Your task to perform on an android device: Open Google Maps and go to "Timeline" Image 0: 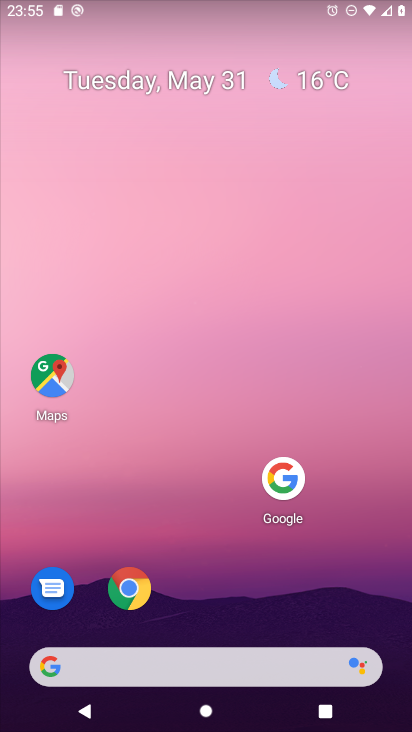
Step 0: click (56, 384)
Your task to perform on an android device: Open Google Maps and go to "Timeline" Image 1: 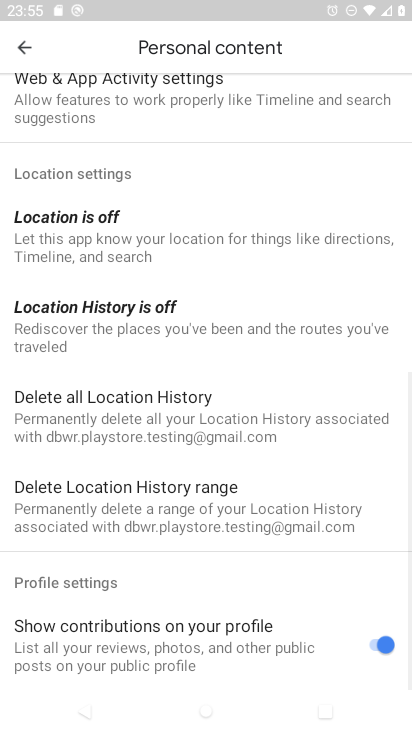
Step 1: click (30, 52)
Your task to perform on an android device: Open Google Maps and go to "Timeline" Image 2: 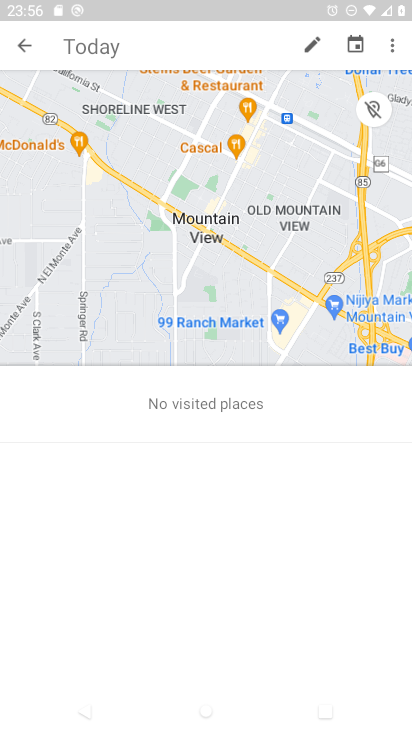
Step 2: task complete